Your task to perform on an android device: Open Wikipedia Image 0: 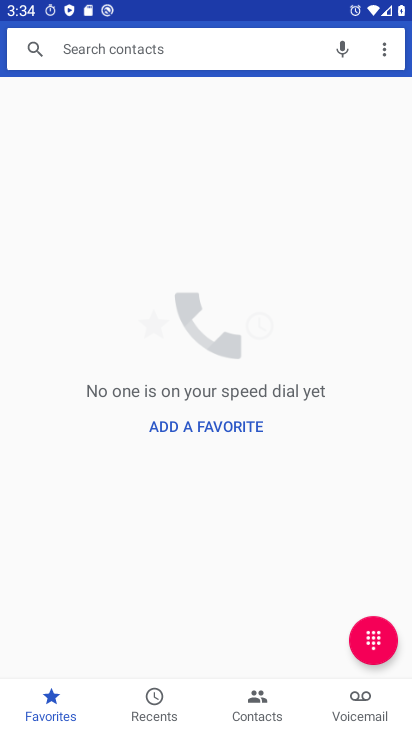
Step 0: press home button
Your task to perform on an android device: Open Wikipedia Image 1: 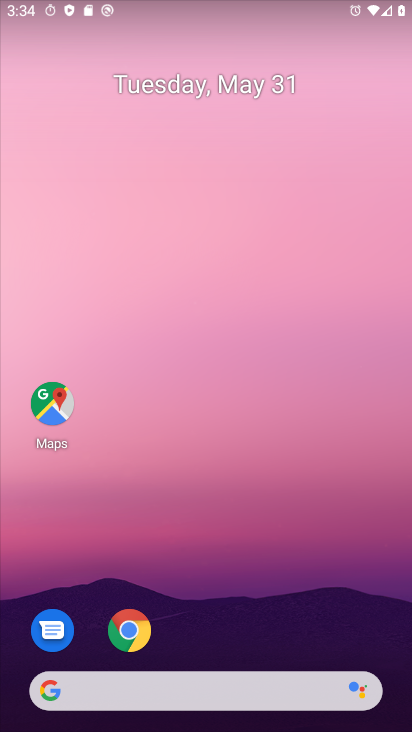
Step 1: drag from (86, 670) to (171, 147)
Your task to perform on an android device: Open Wikipedia Image 2: 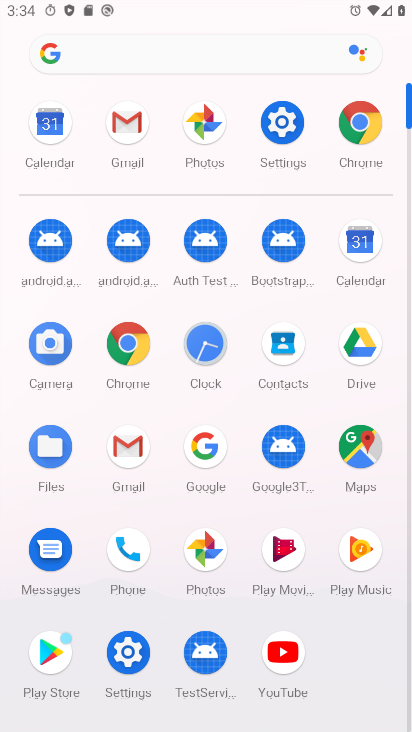
Step 2: click (139, 447)
Your task to perform on an android device: Open Wikipedia Image 3: 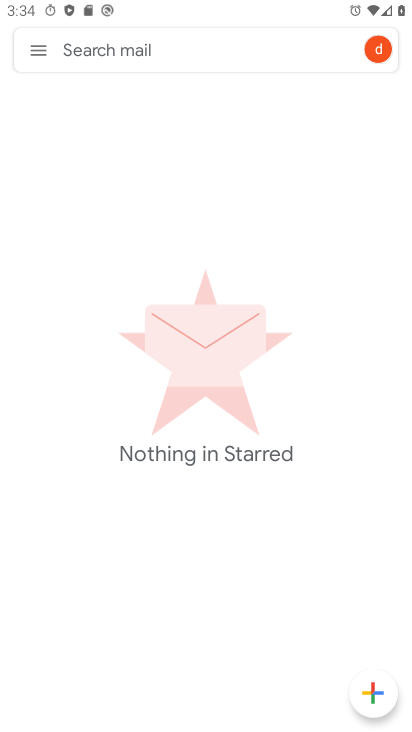
Step 3: click (31, 45)
Your task to perform on an android device: Open Wikipedia Image 4: 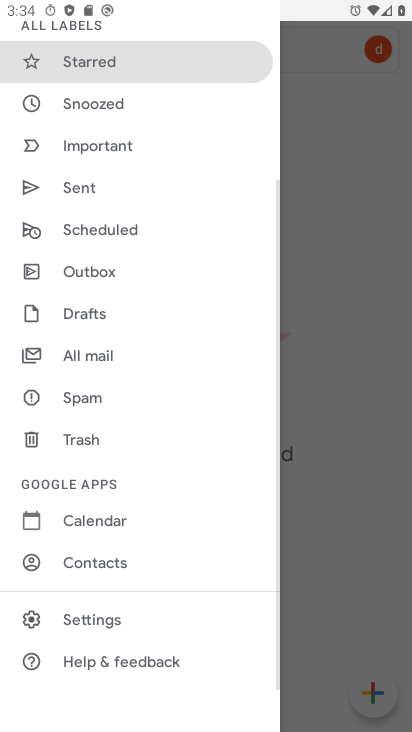
Step 4: press home button
Your task to perform on an android device: Open Wikipedia Image 5: 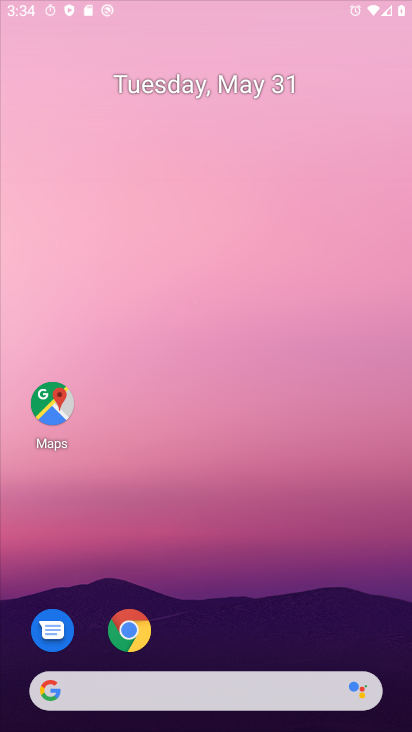
Step 5: drag from (176, 699) to (224, 90)
Your task to perform on an android device: Open Wikipedia Image 6: 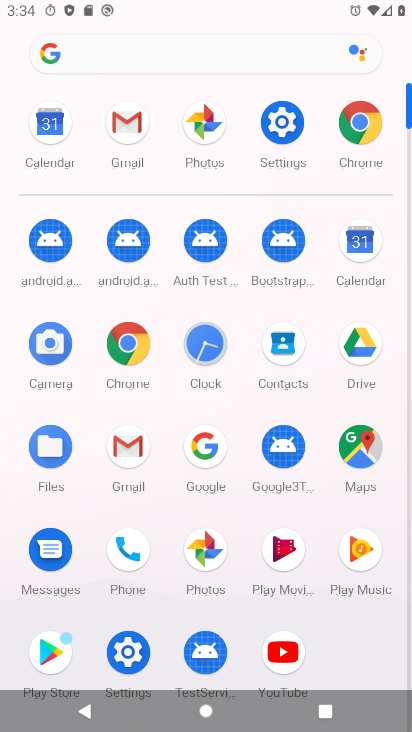
Step 6: click (130, 351)
Your task to perform on an android device: Open Wikipedia Image 7: 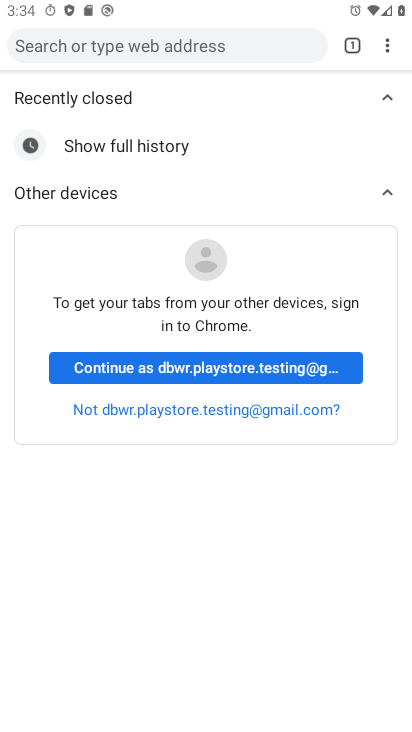
Step 7: click (156, 50)
Your task to perform on an android device: Open Wikipedia Image 8: 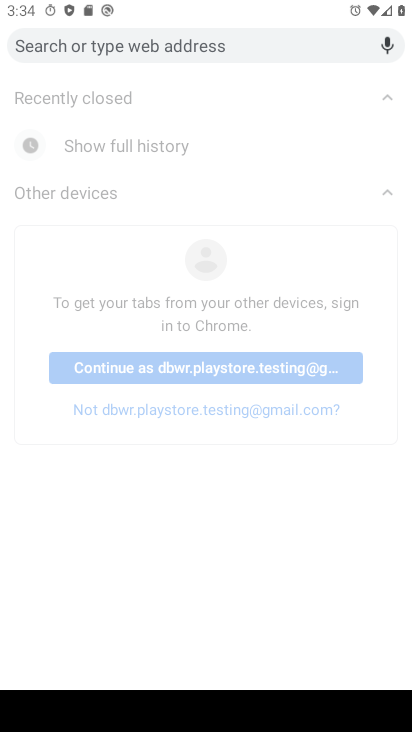
Step 8: type "wikipedia"
Your task to perform on an android device: Open Wikipedia Image 9: 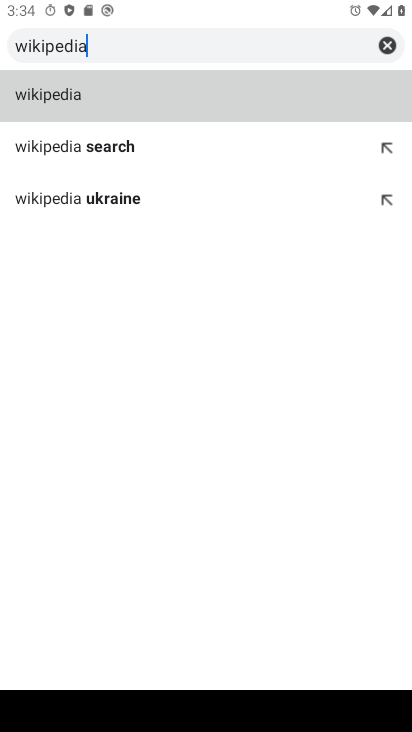
Step 9: click (119, 114)
Your task to perform on an android device: Open Wikipedia Image 10: 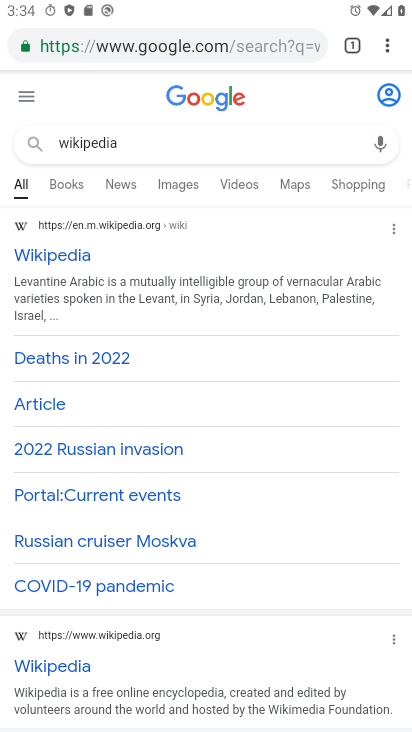
Step 10: task complete